Your task to perform on an android device: turn on the 24-hour format for clock Image 0: 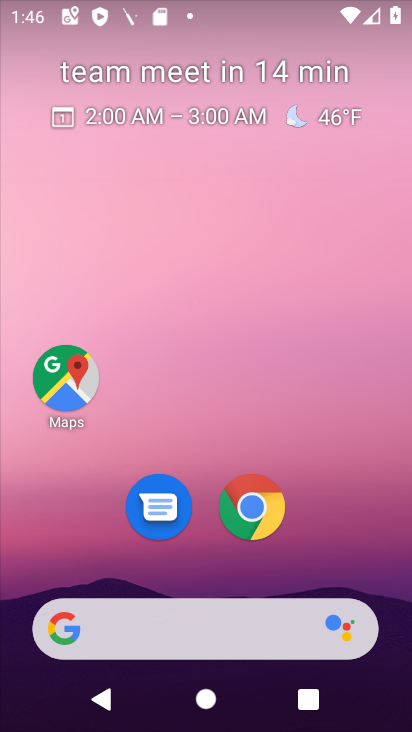
Step 0: click (346, 147)
Your task to perform on an android device: turn on the 24-hour format for clock Image 1: 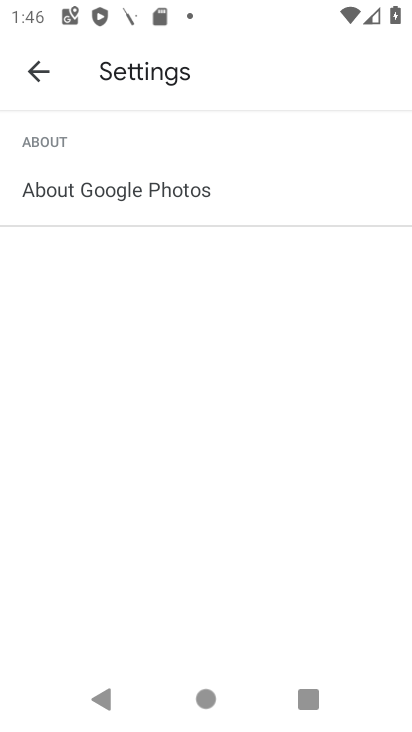
Step 1: press home button
Your task to perform on an android device: turn on the 24-hour format for clock Image 2: 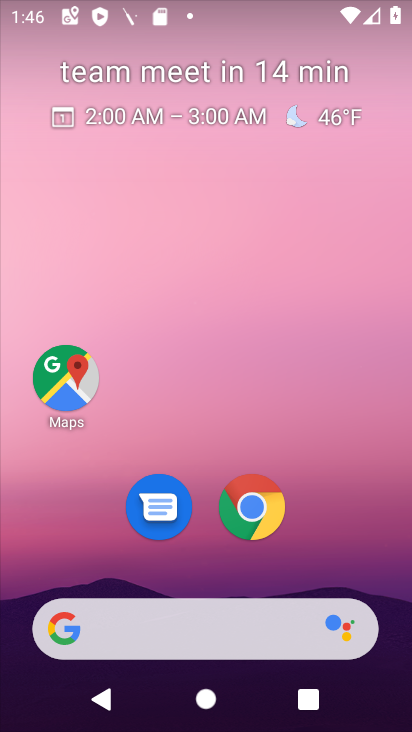
Step 2: drag from (200, 634) to (225, 155)
Your task to perform on an android device: turn on the 24-hour format for clock Image 3: 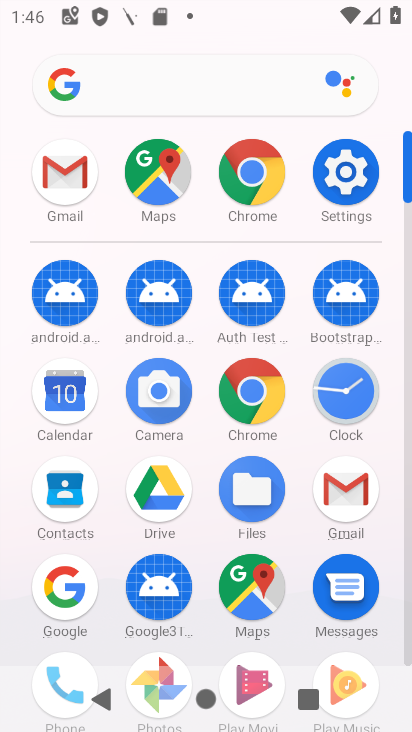
Step 3: click (332, 390)
Your task to perform on an android device: turn on the 24-hour format for clock Image 4: 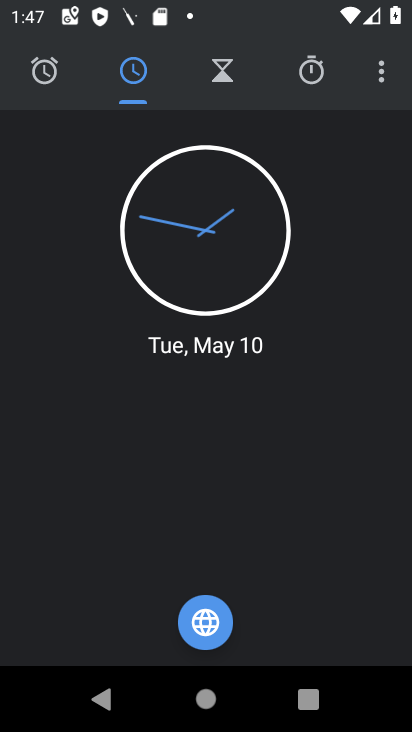
Step 4: click (390, 80)
Your task to perform on an android device: turn on the 24-hour format for clock Image 5: 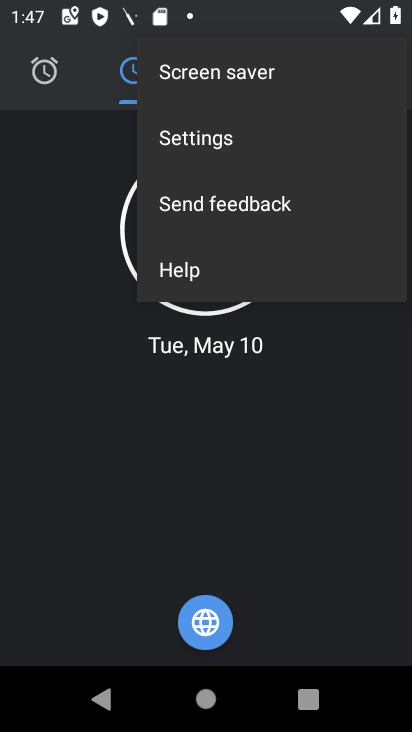
Step 5: click (213, 138)
Your task to perform on an android device: turn on the 24-hour format for clock Image 6: 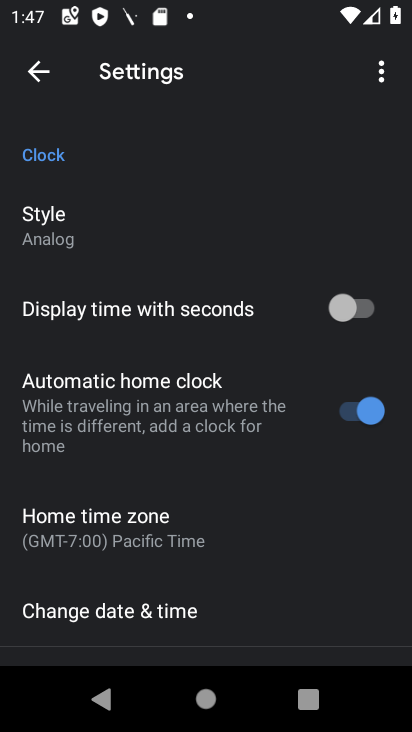
Step 6: drag from (280, 529) to (247, 422)
Your task to perform on an android device: turn on the 24-hour format for clock Image 7: 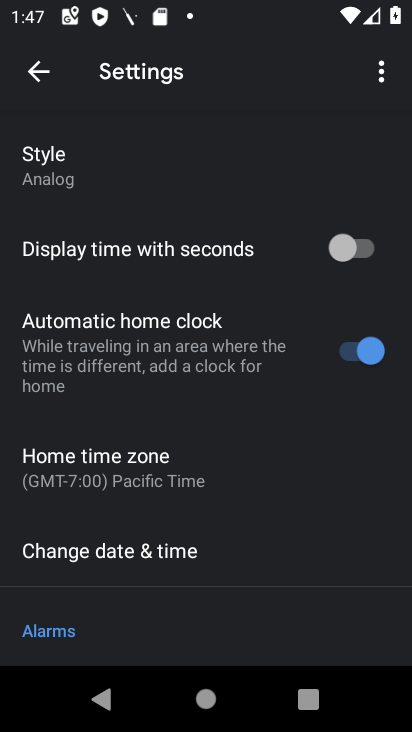
Step 7: click (206, 552)
Your task to perform on an android device: turn on the 24-hour format for clock Image 8: 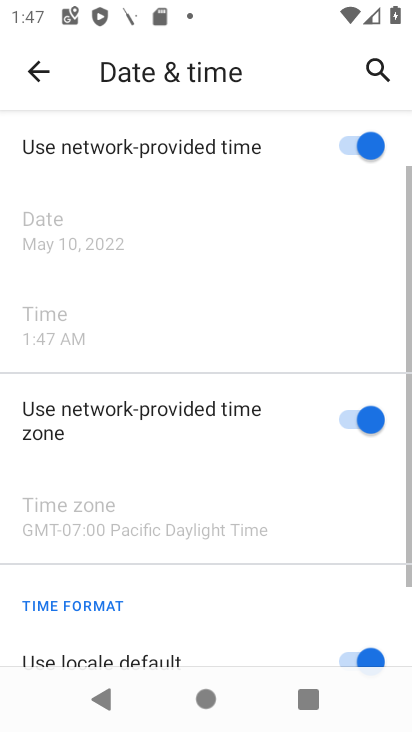
Step 8: drag from (274, 477) to (291, 265)
Your task to perform on an android device: turn on the 24-hour format for clock Image 9: 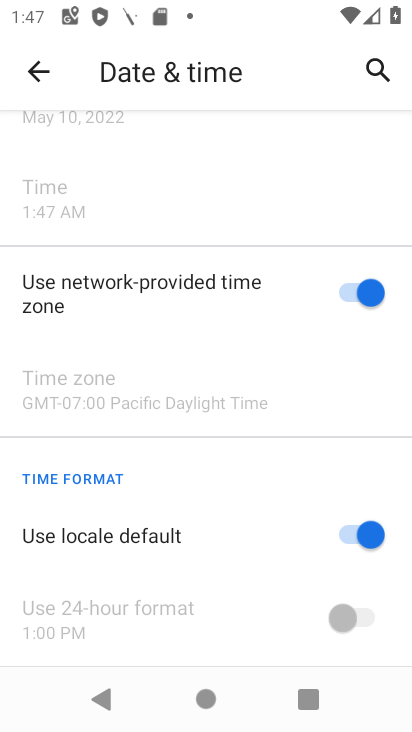
Step 9: click (361, 543)
Your task to perform on an android device: turn on the 24-hour format for clock Image 10: 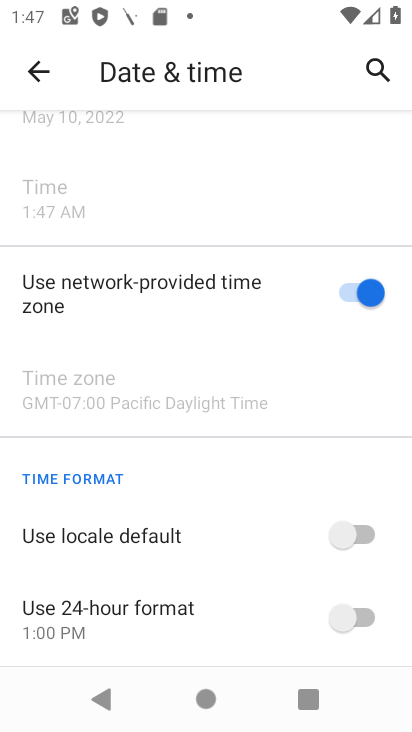
Step 10: click (350, 621)
Your task to perform on an android device: turn on the 24-hour format for clock Image 11: 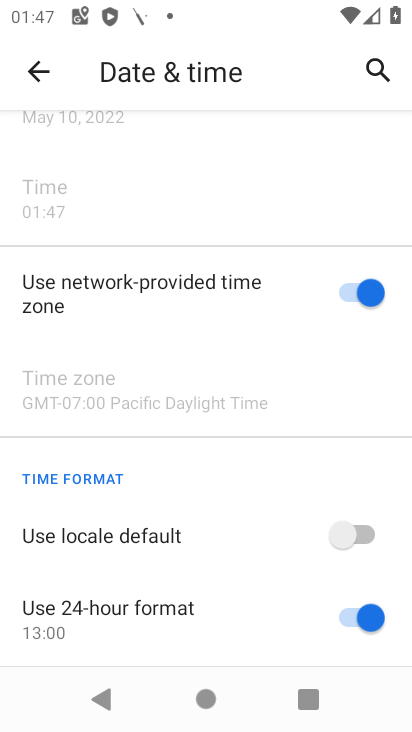
Step 11: task complete